Your task to perform on an android device: install app "LiveIn - Share Your Moment" Image 0: 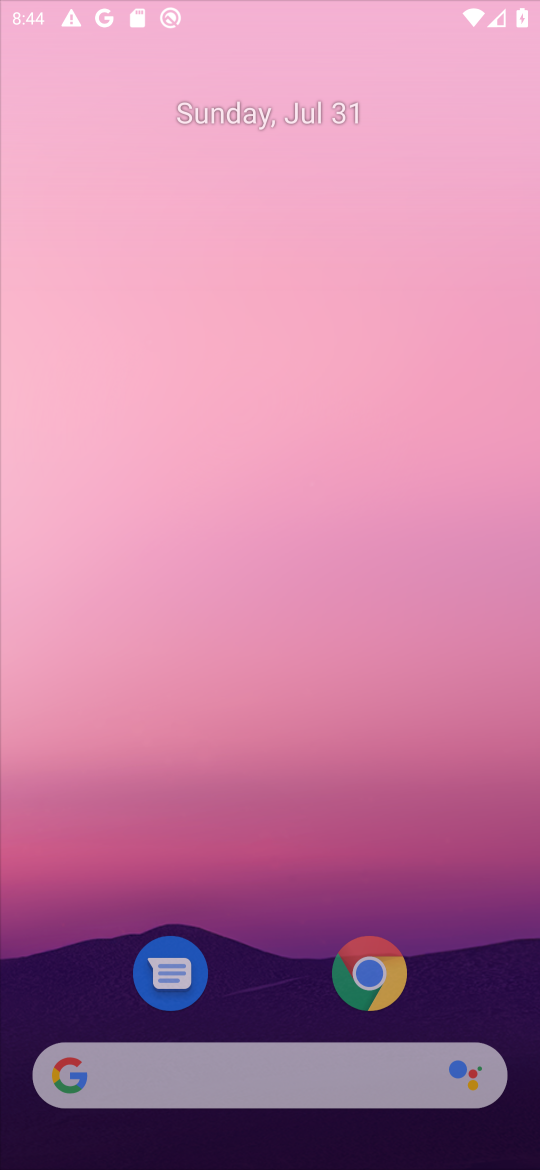
Step 0: press home button
Your task to perform on an android device: install app "LiveIn - Share Your Moment" Image 1: 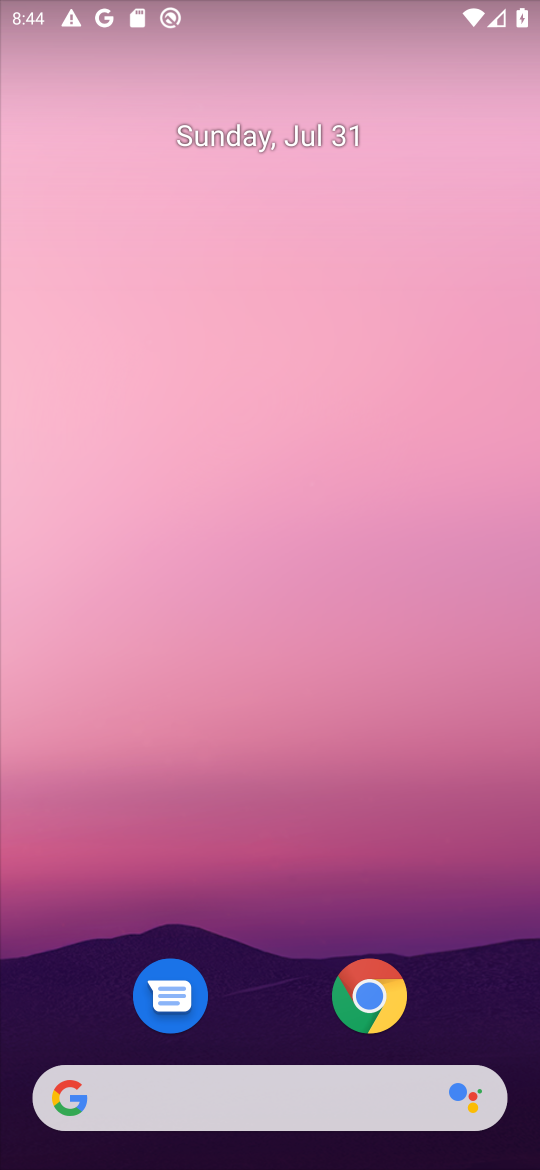
Step 1: drag from (445, 995) to (418, 177)
Your task to perform on an android device: install app "LiveIn - Share Your Moment" Image 2: 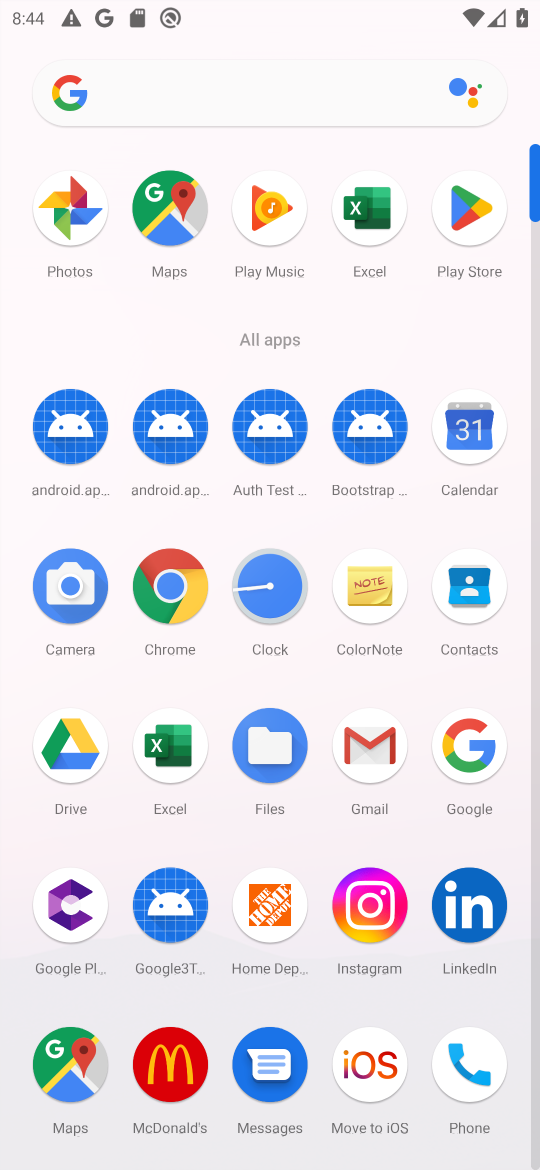
Step 2: click (480, 218)
Your task to perform on an android device: install app "LiveIn - Share Your Moment" Image 3: 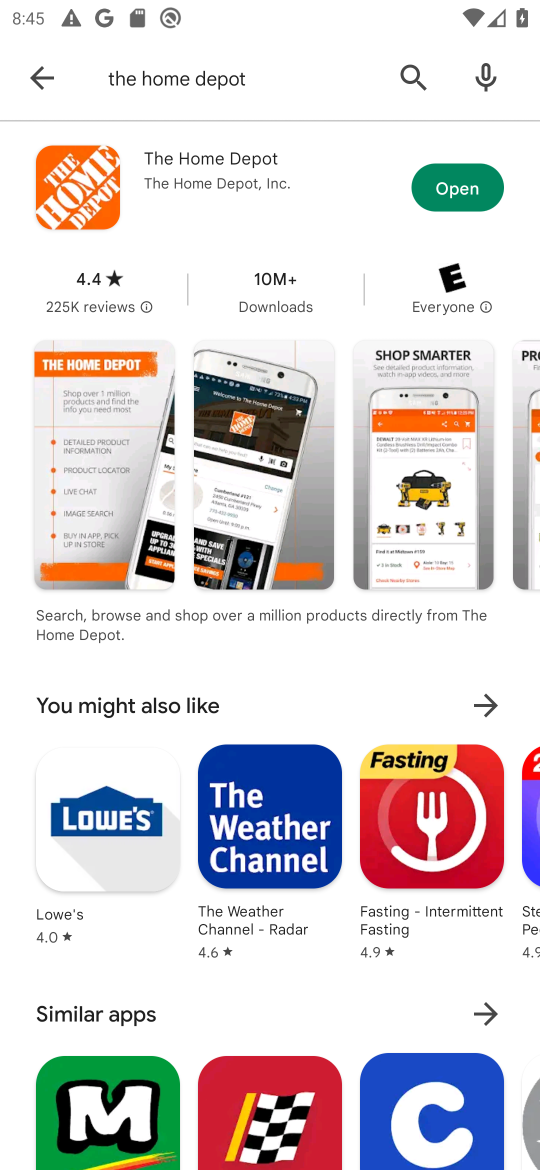
Step 3: click (409, 72)
Your task to perform on an android device: install app "LiveIn - Share Your Moment" Image 4: 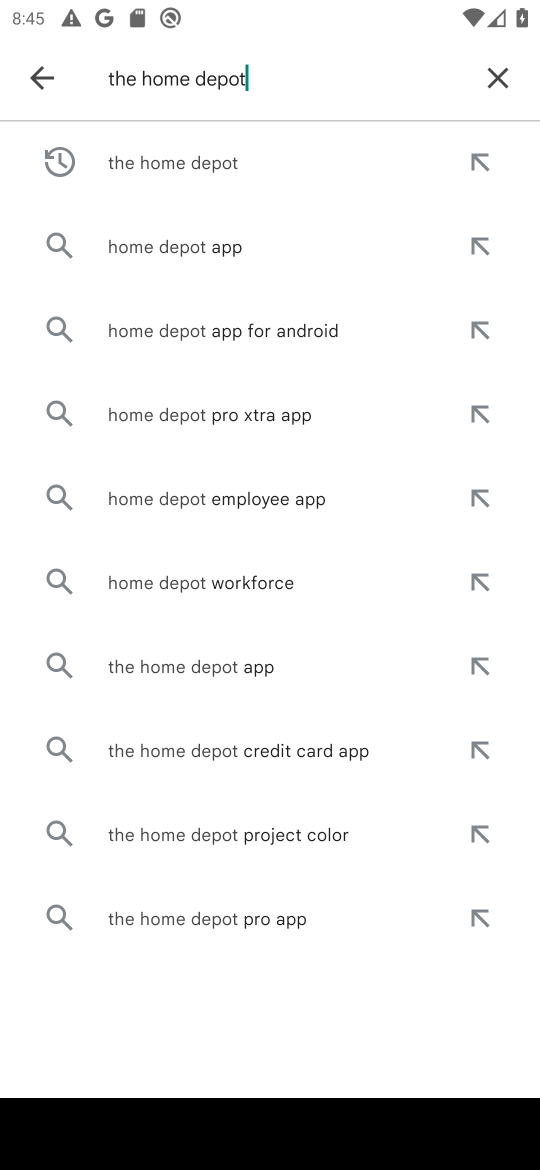
Step 4: click (502, 76)
Your task to perform on an android device: install app "LiveIn - Share Your Moment" Image 5: 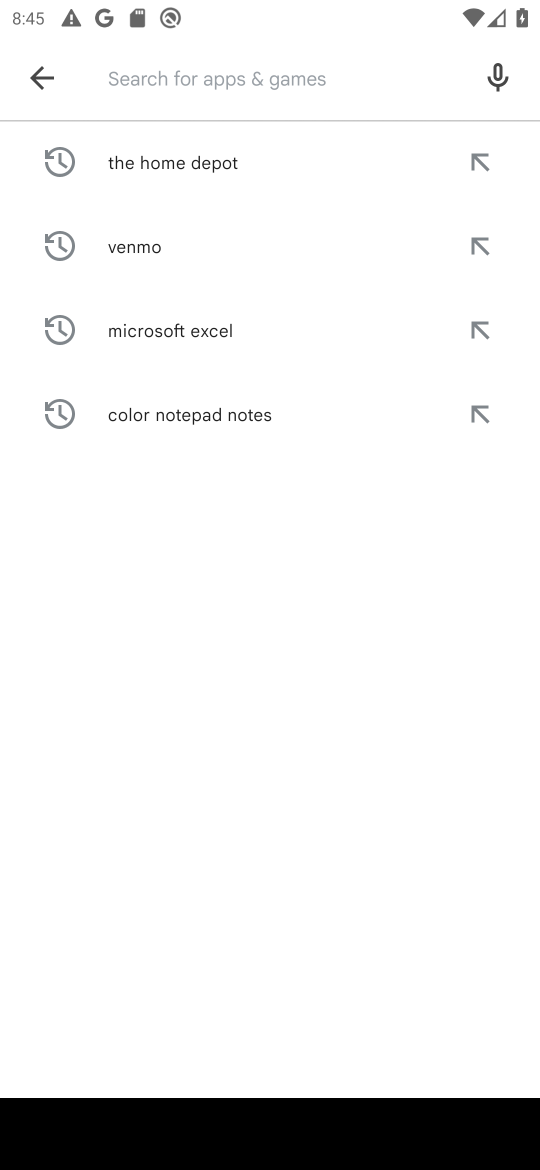
Step 5: type "livein share your monment"
Your task to perform on an android device: install app "LiveIn - Share Your Moment" Image 6: 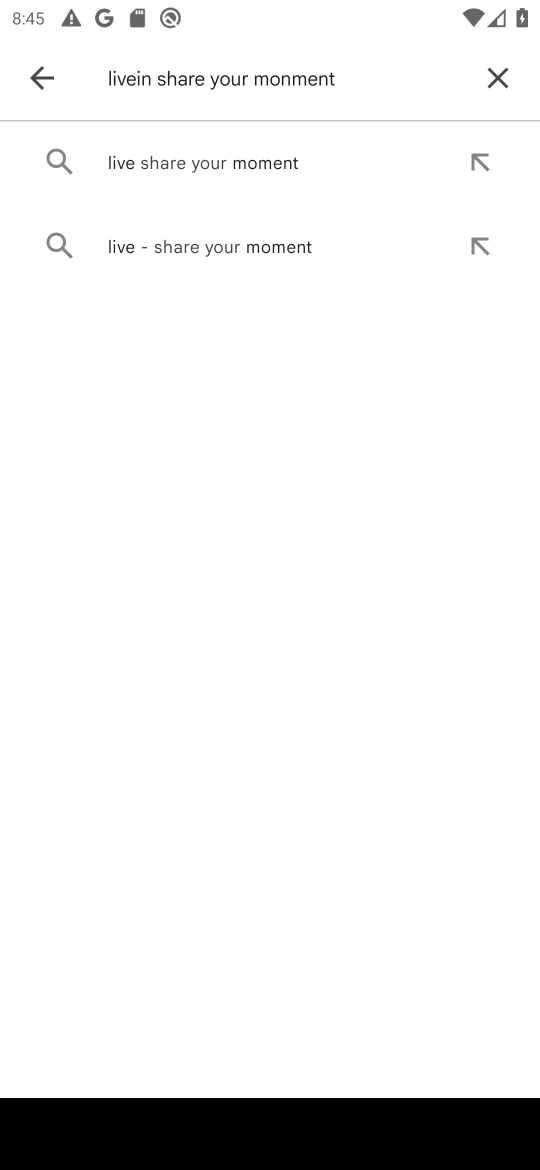
Step 6: click (188, 161)
Your task to perform on an android device: install app "LiveIn - Share Your Moment" Image 7: 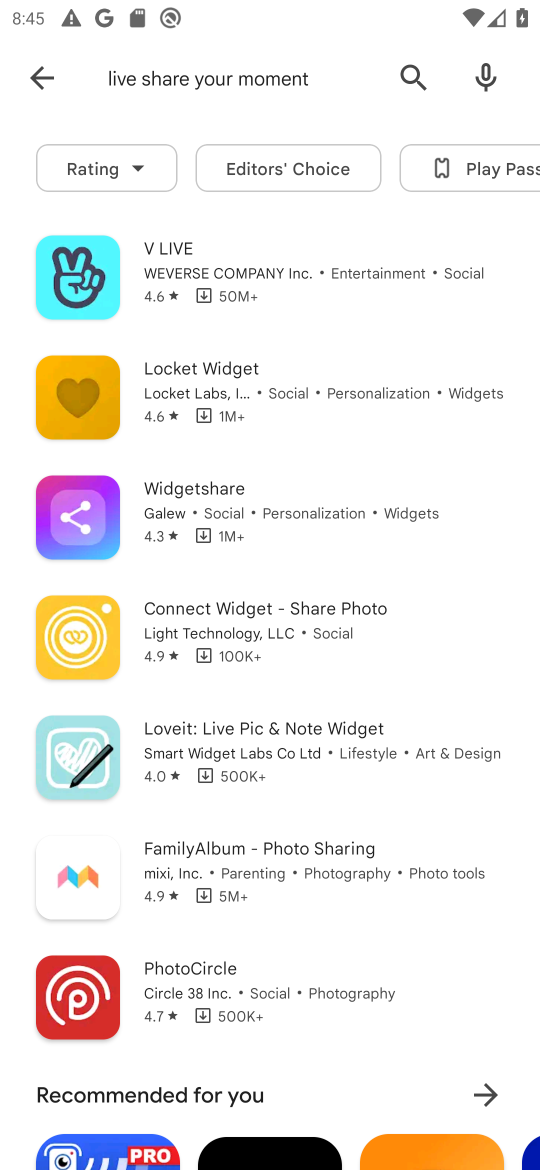
Step 7: task complete